Your task to perform on an android device: Open notification settings Image 0: 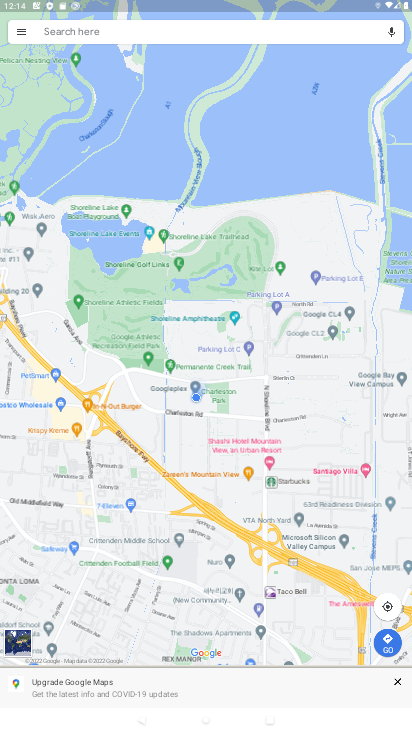
Step 0: press home button
Your task to perform on an android device: Open notification settings Image 1: 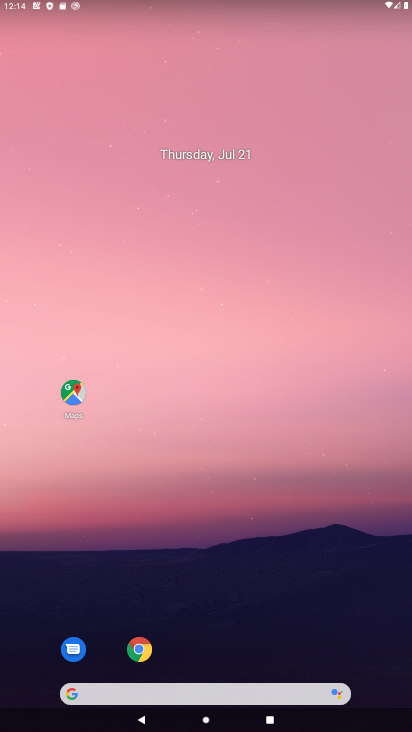
Step 1: drag from (378, 661) to (259, 26)
Your task to perform on an android device: Open notification settings Image 2: 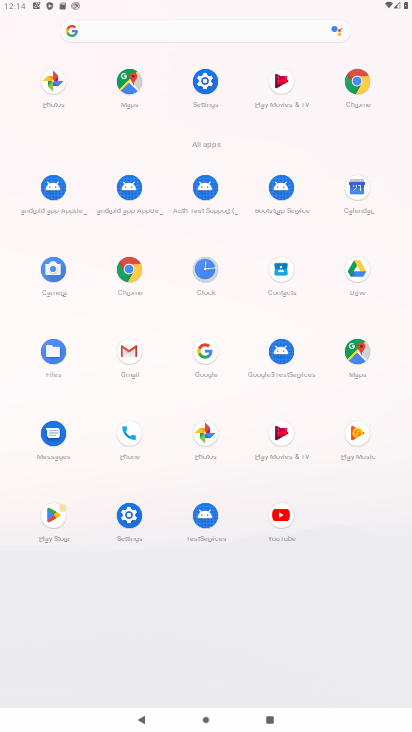
Step 2: click (128, 518)
Your task to perform on an android device: Open notification settings Image 3: 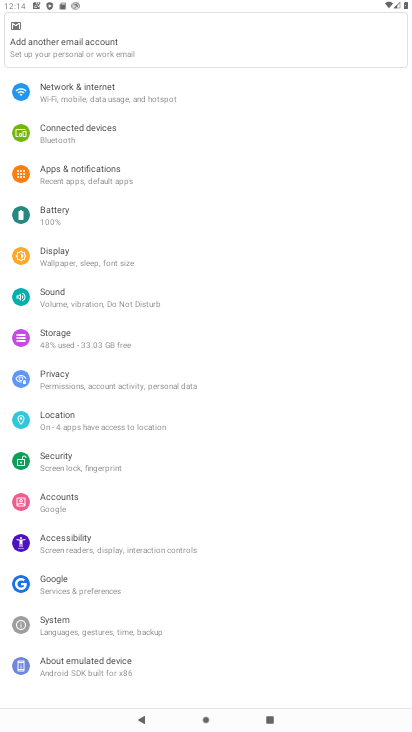
Step 3: click (71, 171)
Your task to perform on an android device: Open notification settings Image 4: 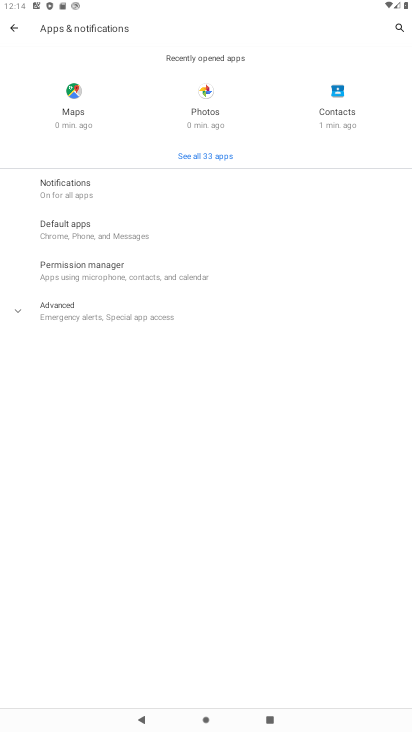
Step 4: click (57, 181)
Your task to perform on an android device: Open notification settings Image 5: 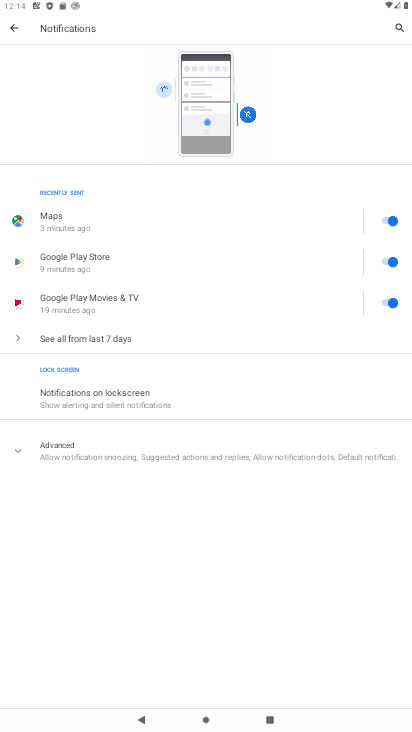
Step 5: click (14, 451)
Your task to perform on an android device: Open notification settings Image 6: 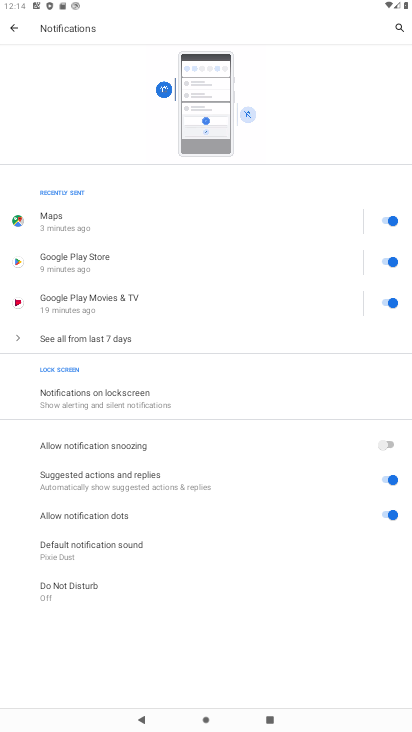
Step 6: task complete